Your task to perform on an android device: turn pop-ups off in chrome Image 0: 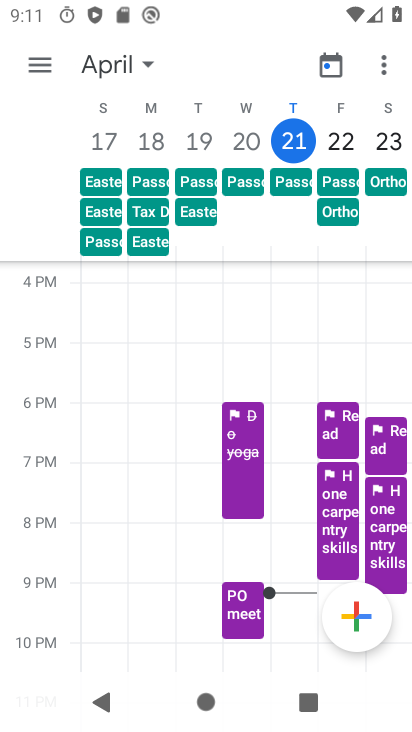
Step 0: press home button
Your task to perform on an android device: turn pop-ups off in chrome Image 1: 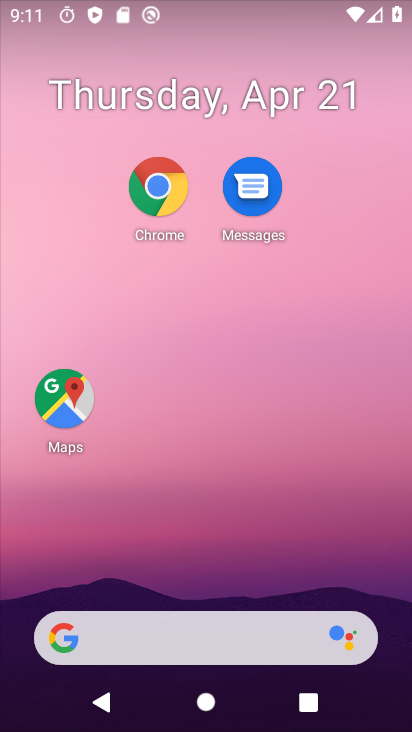
Step 1: click (156, 198)
Your task to perform on an android device: turn pop-ups off in chrome Image 2: 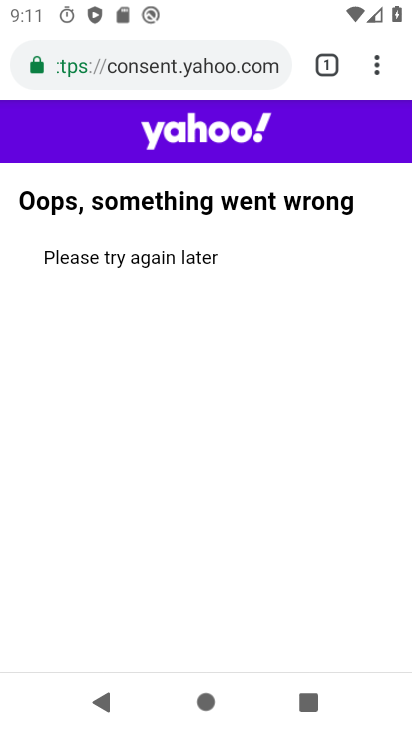
Step 2: click (380, 61)
Your task to perform on an android device: turn pop-ups off in chrome Image 3: 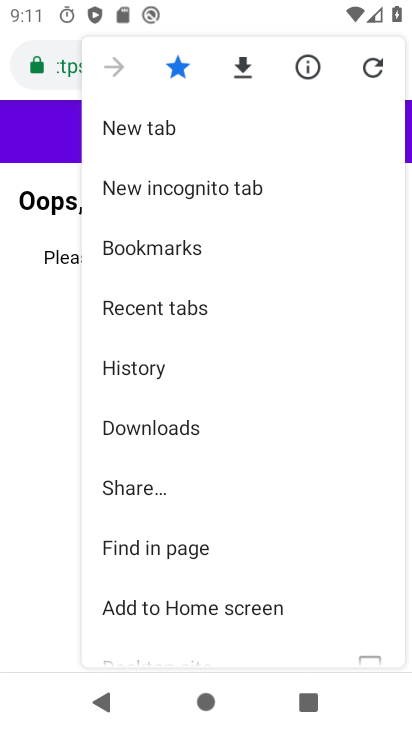
Step 3: drag from (225, 570) to (242, 88)
Your task to perform on an android device: turn pop-ups off in chrome Image 4: 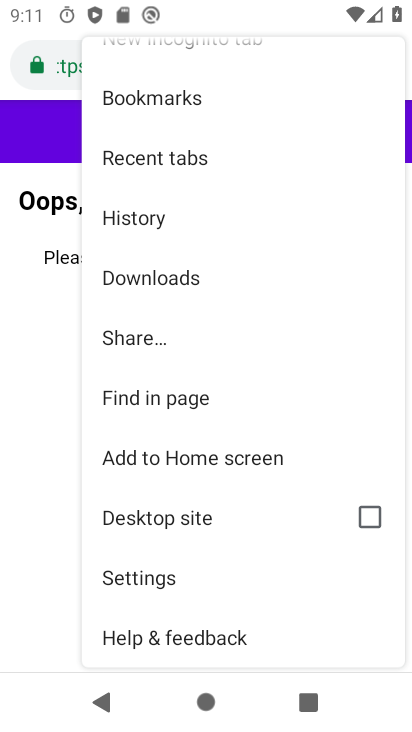
Step 4: click (169, 584)
Your task to perform on an android device: turn pop-ups off in chrome Image 5: 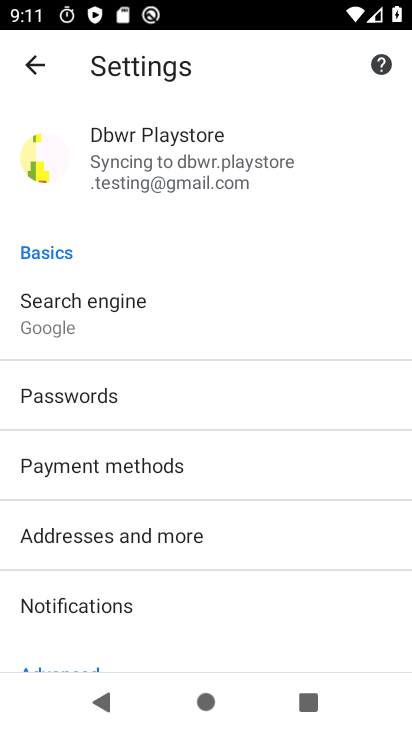
Step 5: drag from (169, 617) to (227, 119)
Your task to perform on an android device: turn pop-ups off in chrome Image 6: 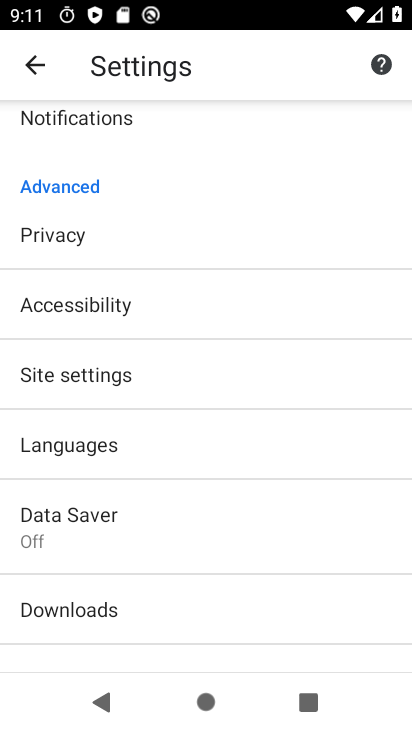
Step 6: drag from (156, 598) to (186, 236)
Your task to perform on an android device: turn pop-ups off in chrome Image 7: 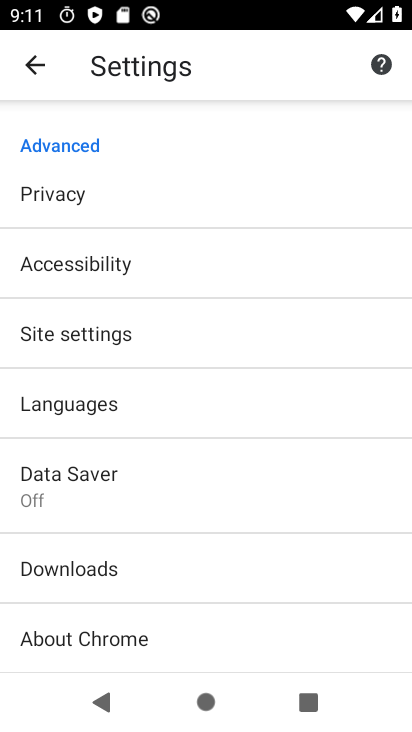
Step 7: click (164, 328)
Your task to perform on an android device: turn pop-ups off in chrome Image 8: 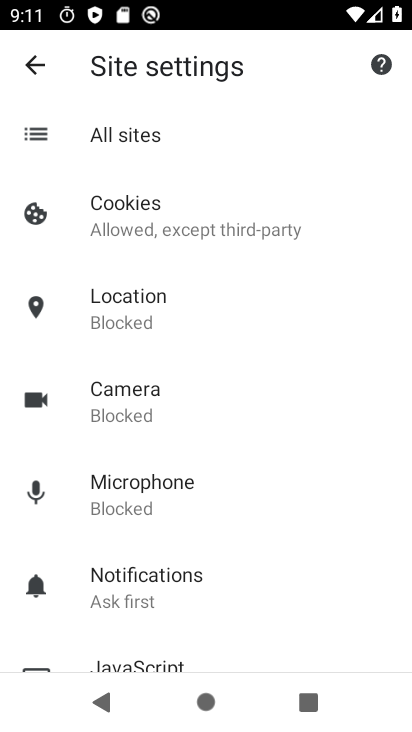
Step 8: drag from (204, 643) to (239, 133)
Your task to perform on an android device: turn pop-ups off in chrome Image 9: 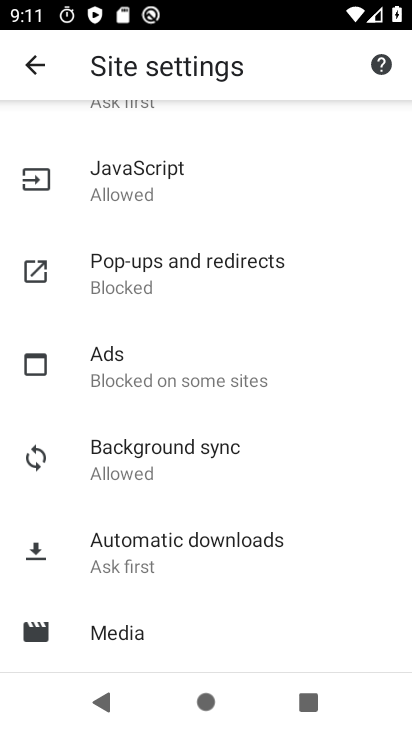
Step 9: click (160, 276)
Your task to perform on an android device: turn pop-ups off in chrome Image 10: 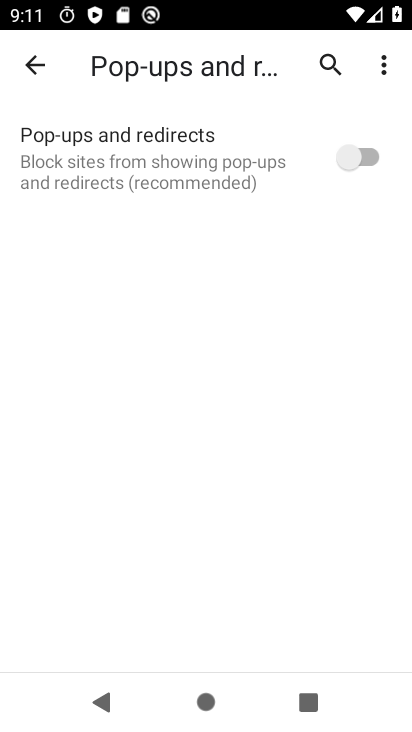
Step 10: task complete